Your task to perform on an android device: turn smart compose on in the gmail app Image 0: 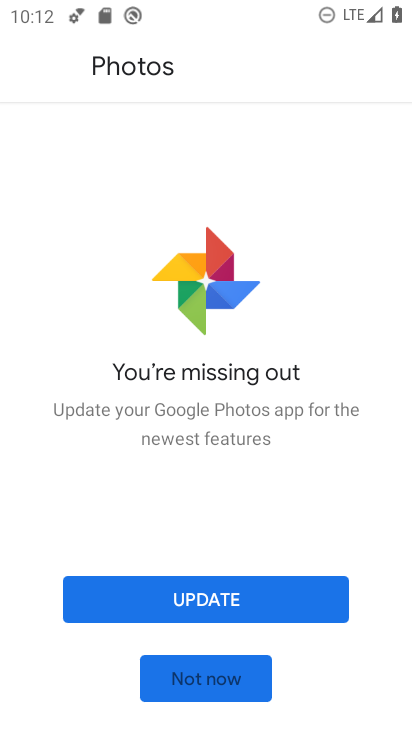
Step 0: press home button
Your task to perform on an android device: turn smart compose on in the gmail app Image 1: 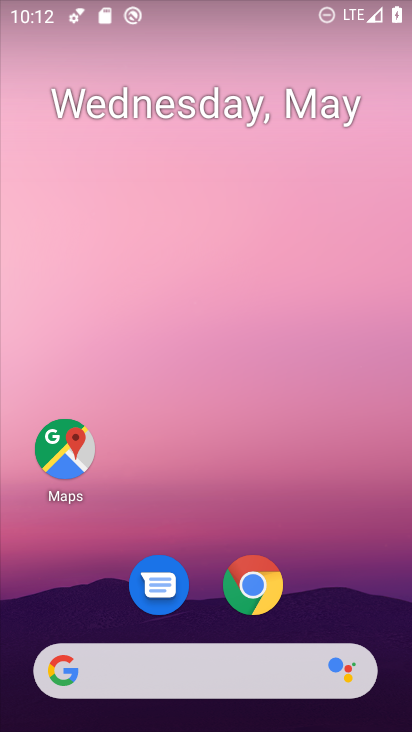
Step 1: drag from (343, 512) to (307, 54)
Your task to perform on an android device: turn smart compose on in the gmail app Image 2: 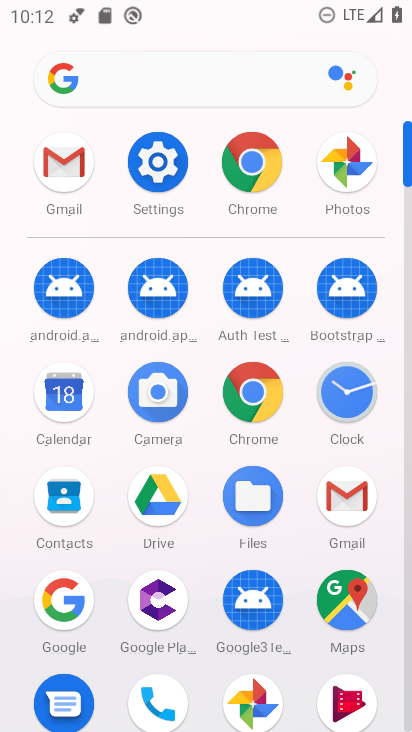
Step 2: click (73, 164)
Your task to perform on an android device: turn smart compose on in the gmail app Image 3: 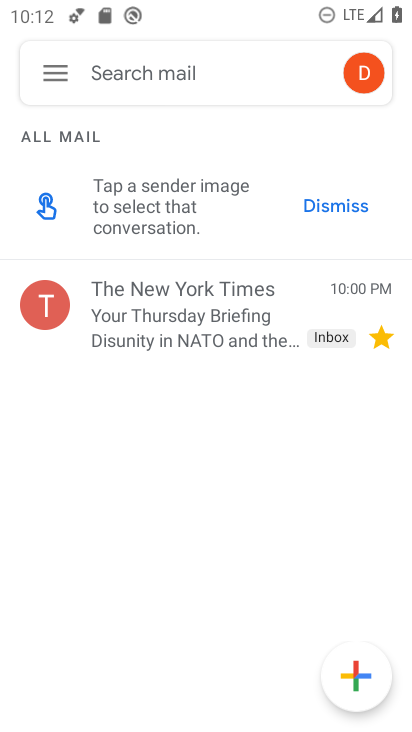
Step 3: click (49, 66)
Your task to perform on an android device: turn smart compose on in the gmail app Image 4: 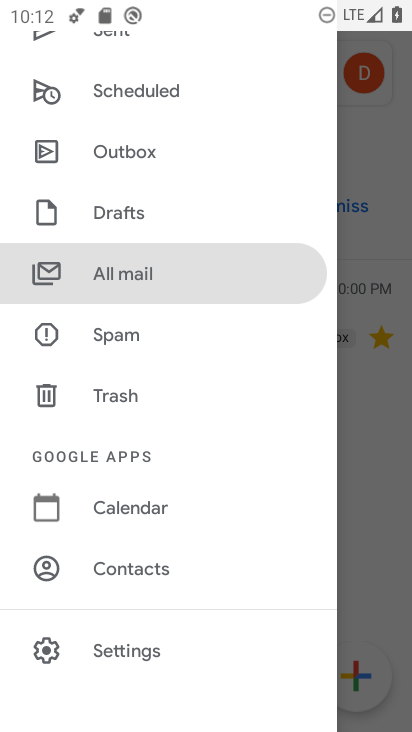
Step 4: click (139, 649)
Your task to perform on an android device: turn smart compose on in the gmail app Image 5: 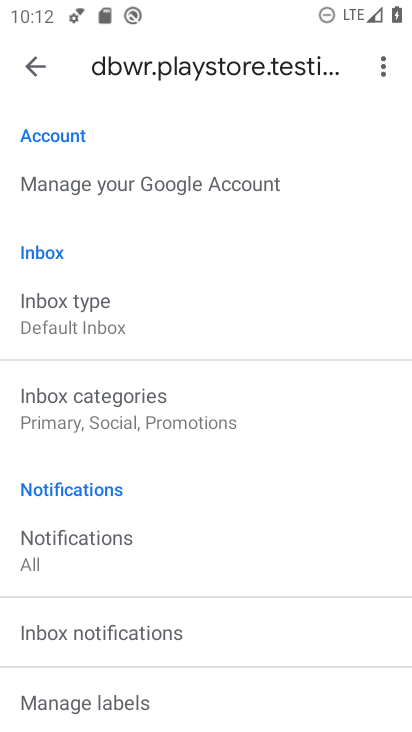
Step 5: task complete